Your task to perform on an android device: uninstall "Yahoo Mail" Image 0: 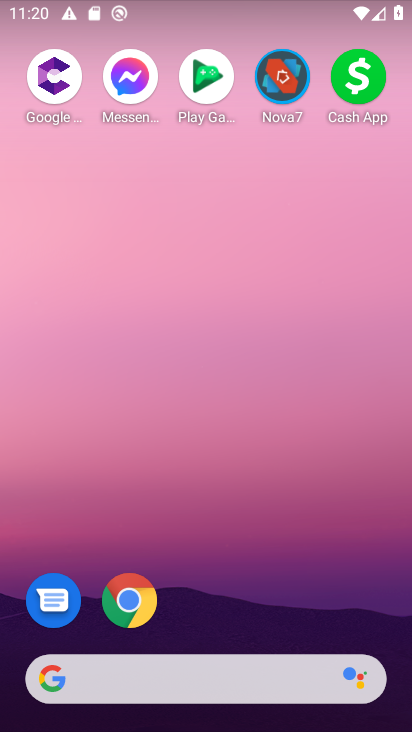
Step 0: drag from (133, 698) to (271, 60)
Your task to perform on an android device: uninstall "Yahoo Mail" Image 1: 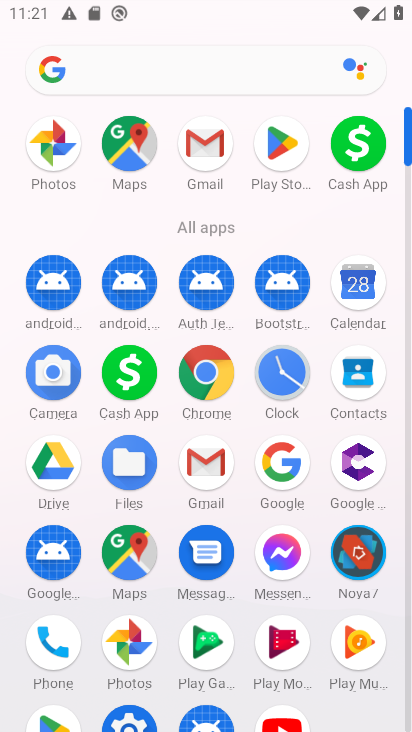
Step 1: click (270, 137)
Your task to perform on an android device: uninstall "Yahoo Mail" Image 2: 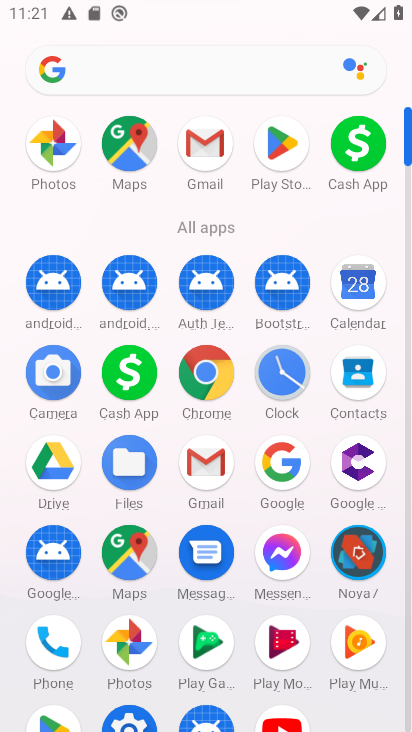
Step 2: click (270, 137)
Your task to perform on an android device: uninstall "Yahoo Mail" Image 3: 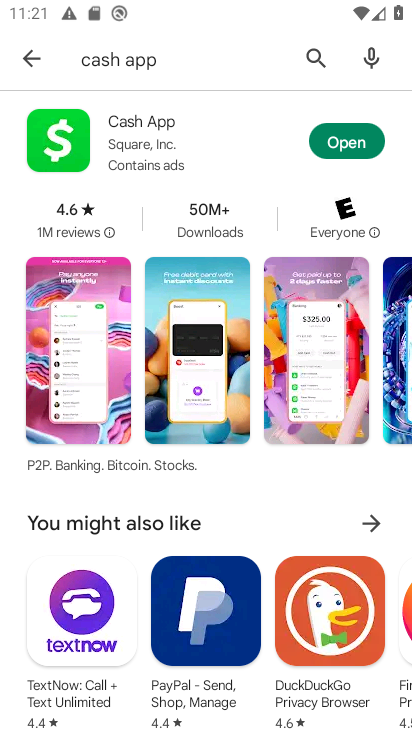
Step 3: click (309, 51)
Your task to perform on an android device: uninstall "Yahoo Mail" Image 4: 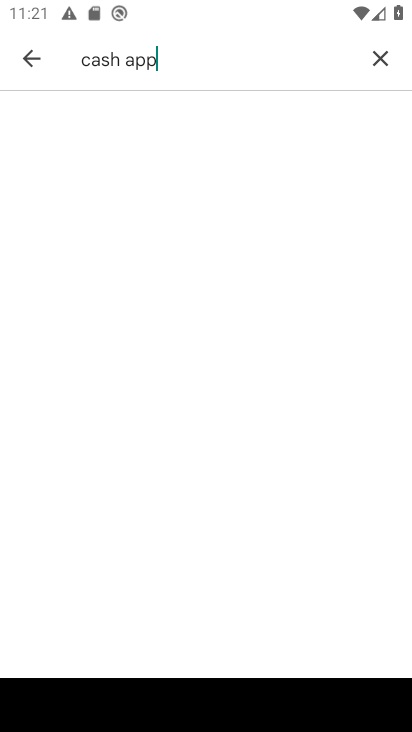
Step 4: click (374, 58)
Your task to perform on an android device: uninstall "Yahoo Mail" Image 5: 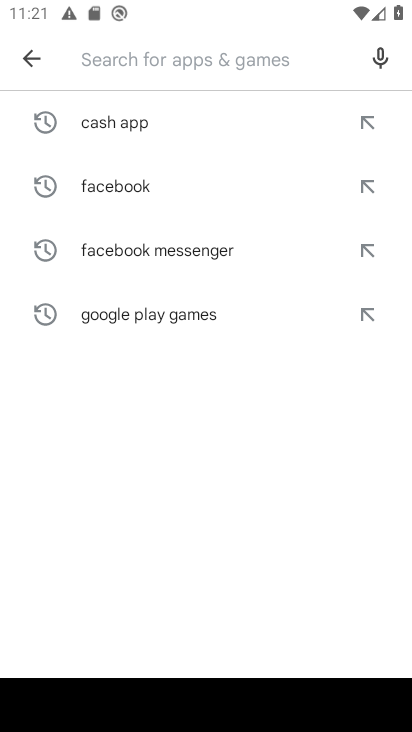
Step 5: type "yahoo Mail"
Your task to perform on an android device: uninstall "Yahoo Mail" Image 6: 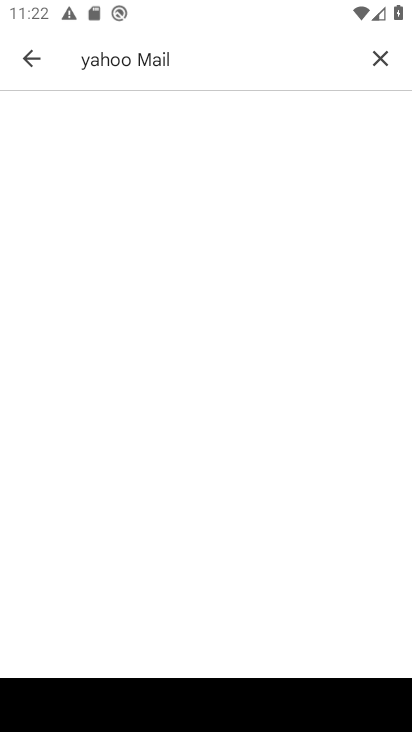
Step 6: type ""
Your task to perform on an android device: uninstall "Yahoo Mail" Image 7: 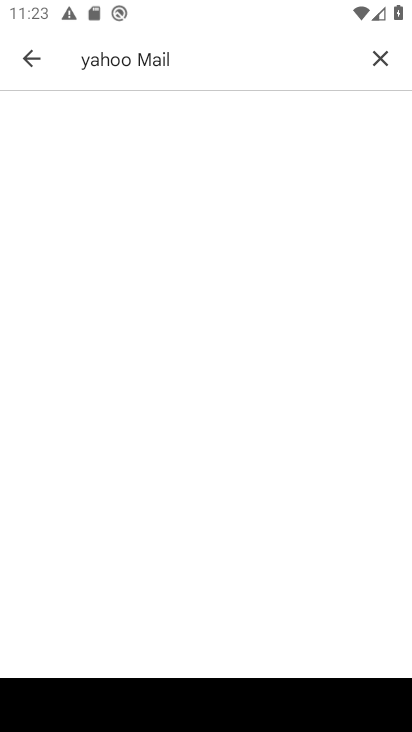
Step 7: press enter
Your task to perform on an android device: uninstall "Yahoo Mail" Image 8: 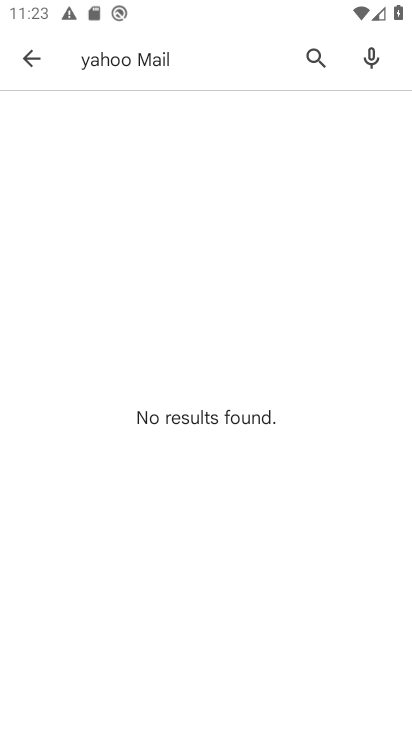
Step 8: task complete